Your task to perform on an android device: delete the emails in spam in the gmail app Image 0: 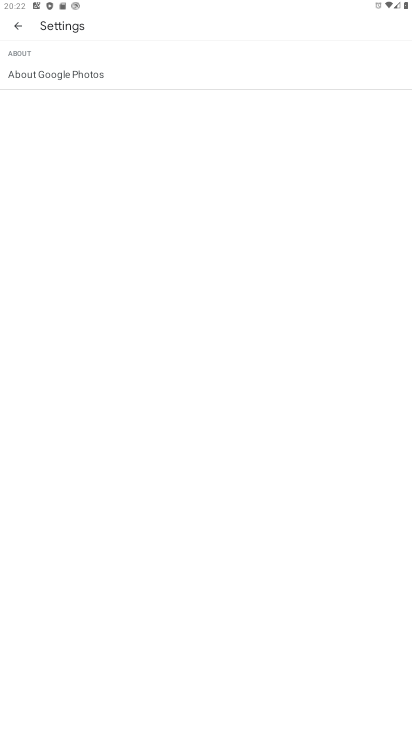
Step 0: press home button
Your task to perform on an android device: delete the emails in spam in the gmail app Image 1: 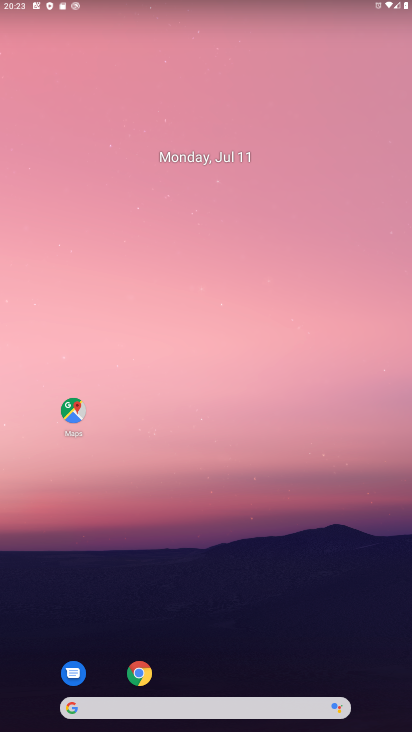
Step 1: drag from (218, 679) to (283, 145)
Your task to perform on an android device: delete the emails in spam in the gmail app Image 2: 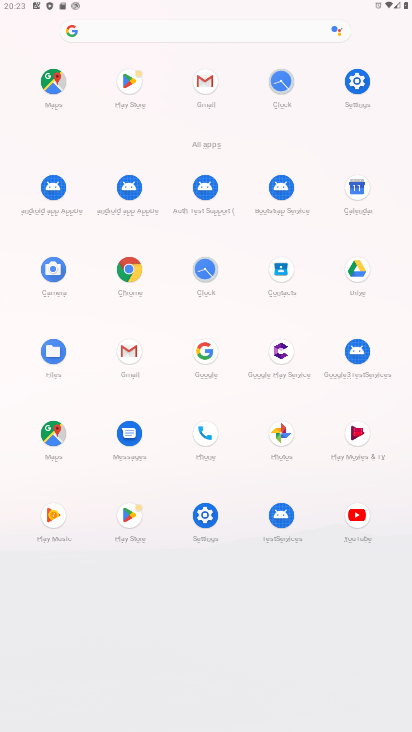
Step 2: click (126, 359)
Your task to perform on an android device: delete the emails in spam in the gmail app Image 3: 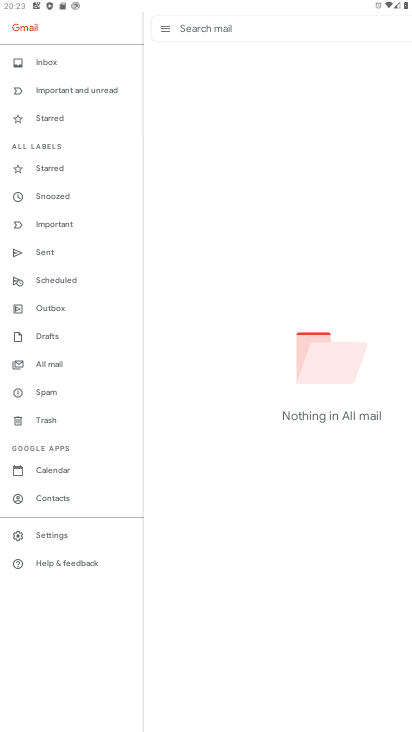
Step 3: click (40, 393)
Your task to perform on an android device: delete the emails in spam in the gmail app Image 4: 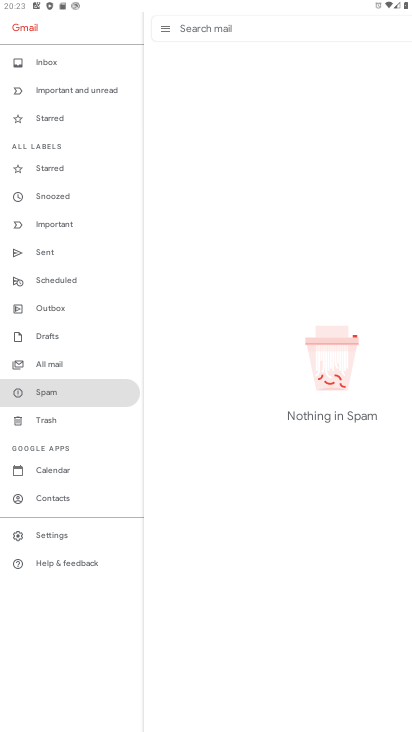
Step 4: task complete